Your task to perform on an android device: Open CNN.com Image 0: 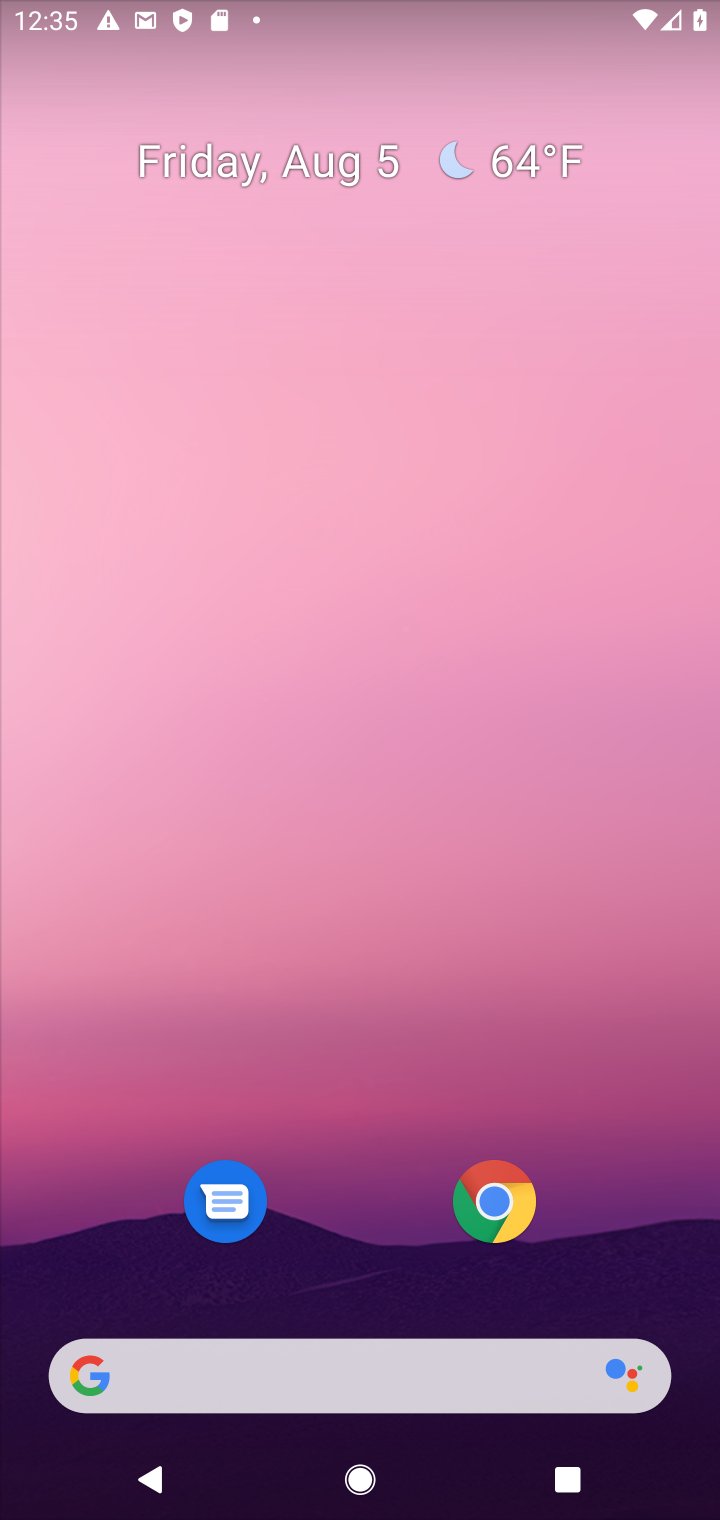
Step 0: click (501, 1193)
Your task to perform on an android device: Open CNN.com Image 1: 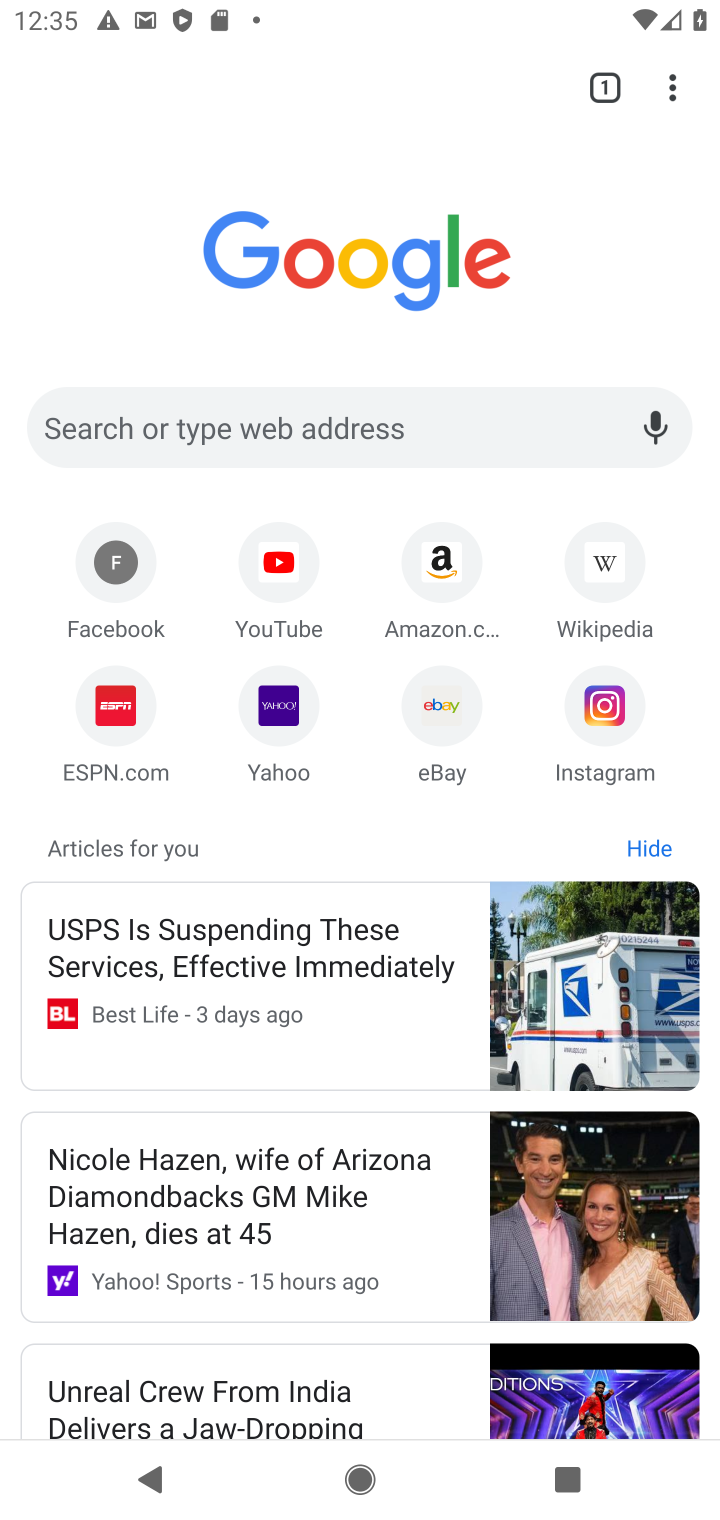
Step 1: click (383, 435)
Your task to perform on an android device: Open CNN.com Image 2: 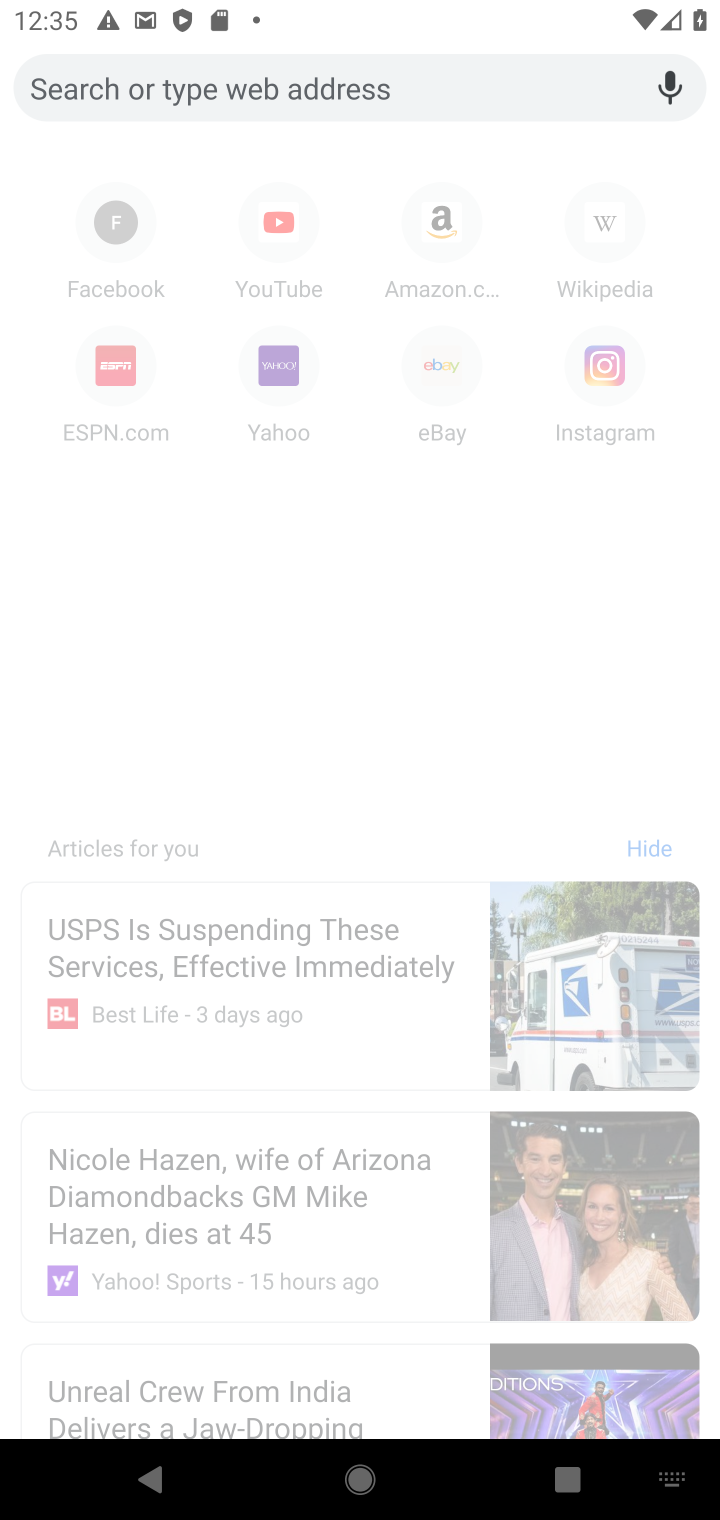
Step 2: type "cnn.com"
Your task to perform on an android device: Open CNN.com Image 3: 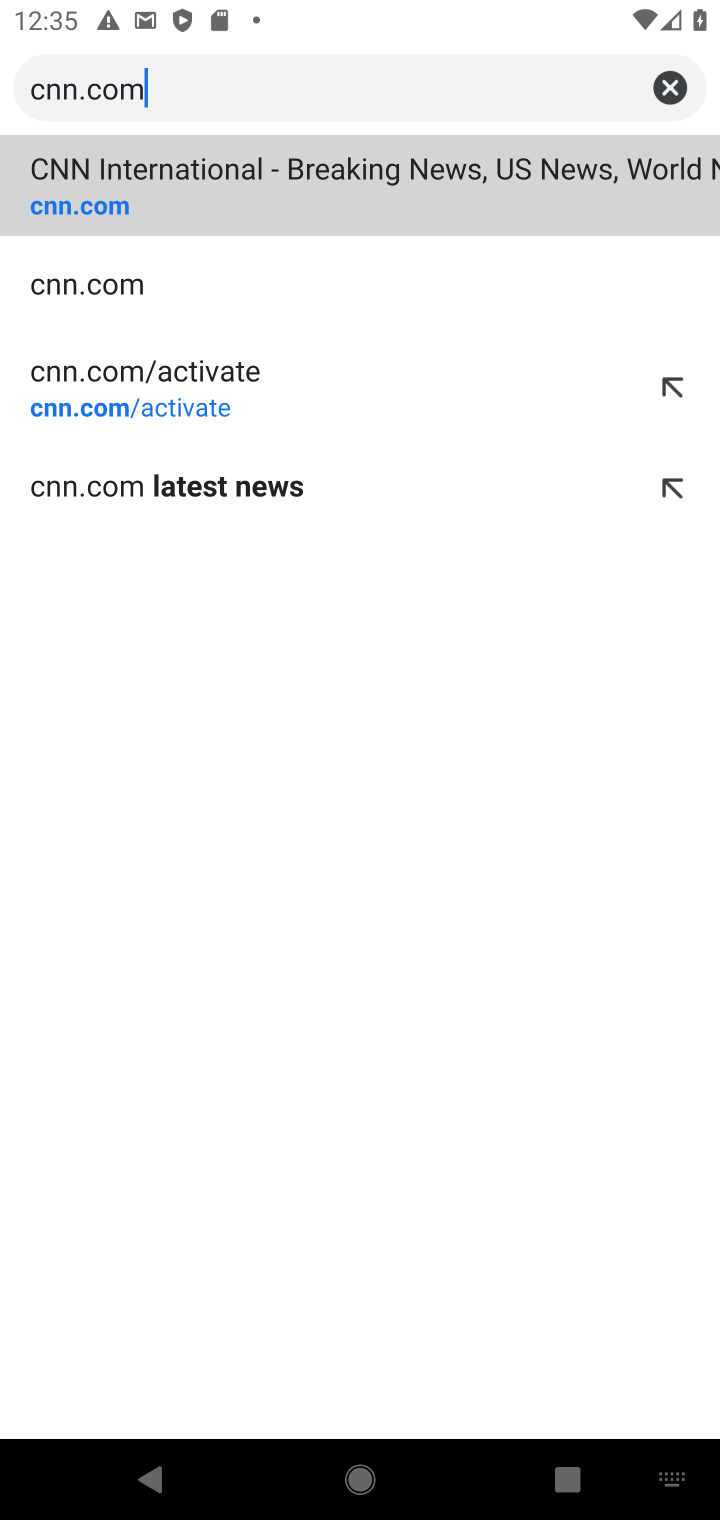
Step 3: click (305, 202)
Your task to perform on an android device: Open CNN.com Image 4: 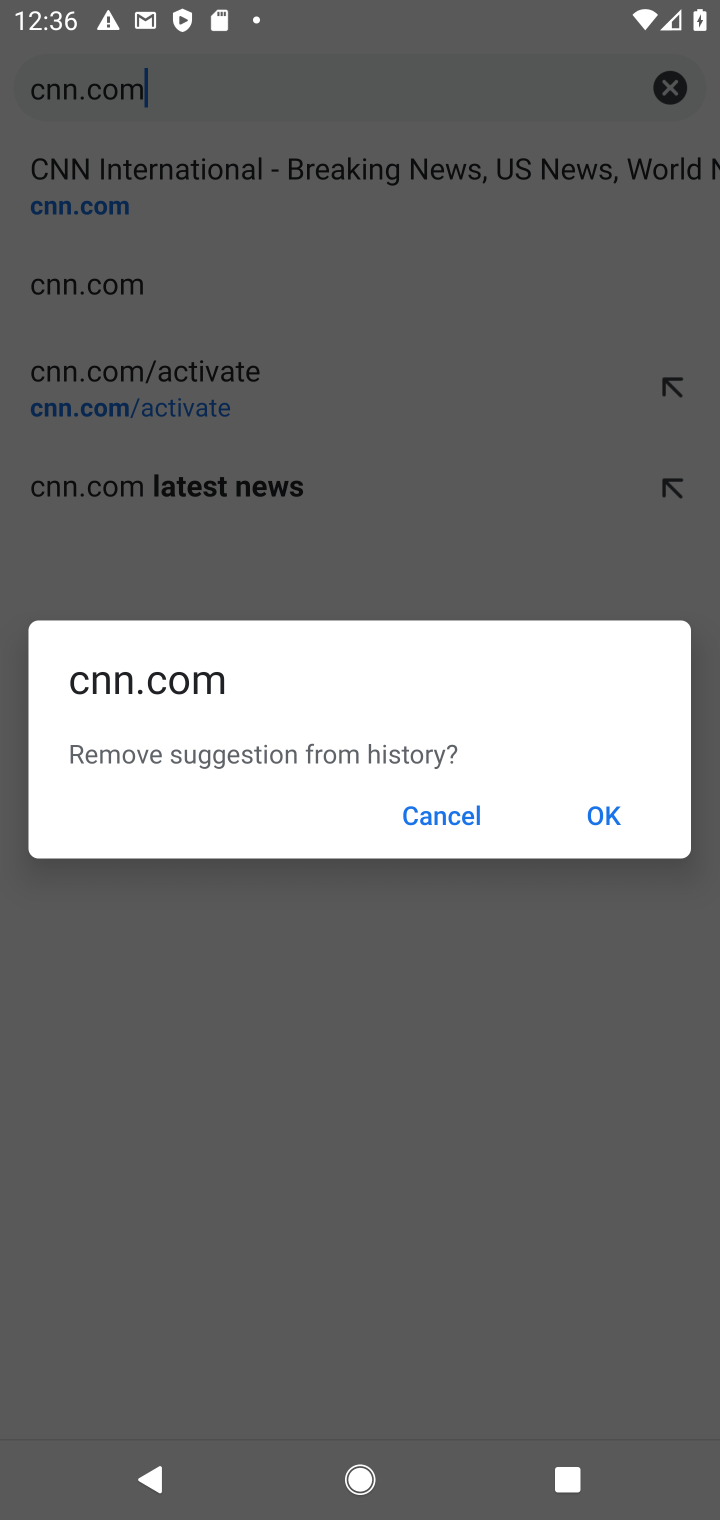
Step 4: click (460, 790)
Your task to perform on an android device: Open CNN.com Image 5: 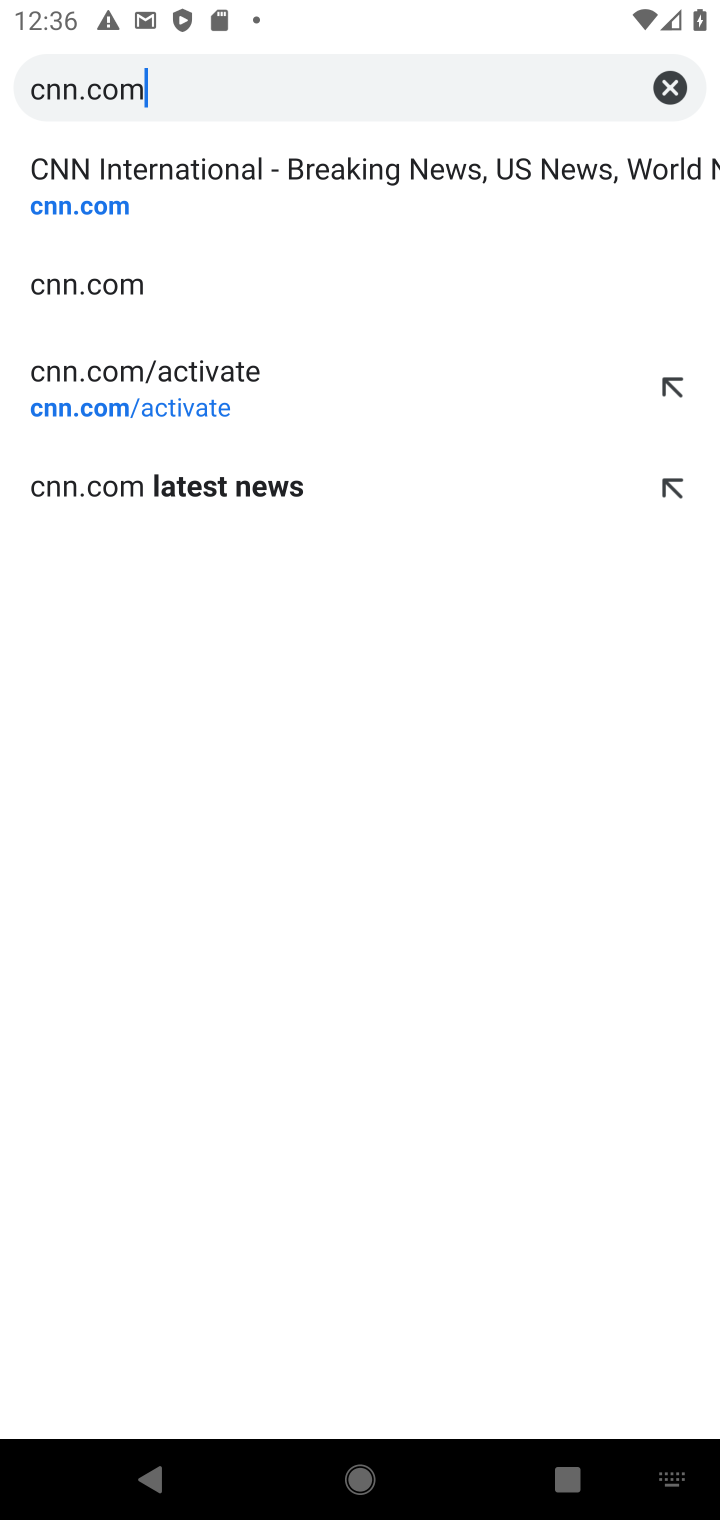
Step 5: click (107, 144)
Your task to perform on an android device: Open CNN.com Image 6: 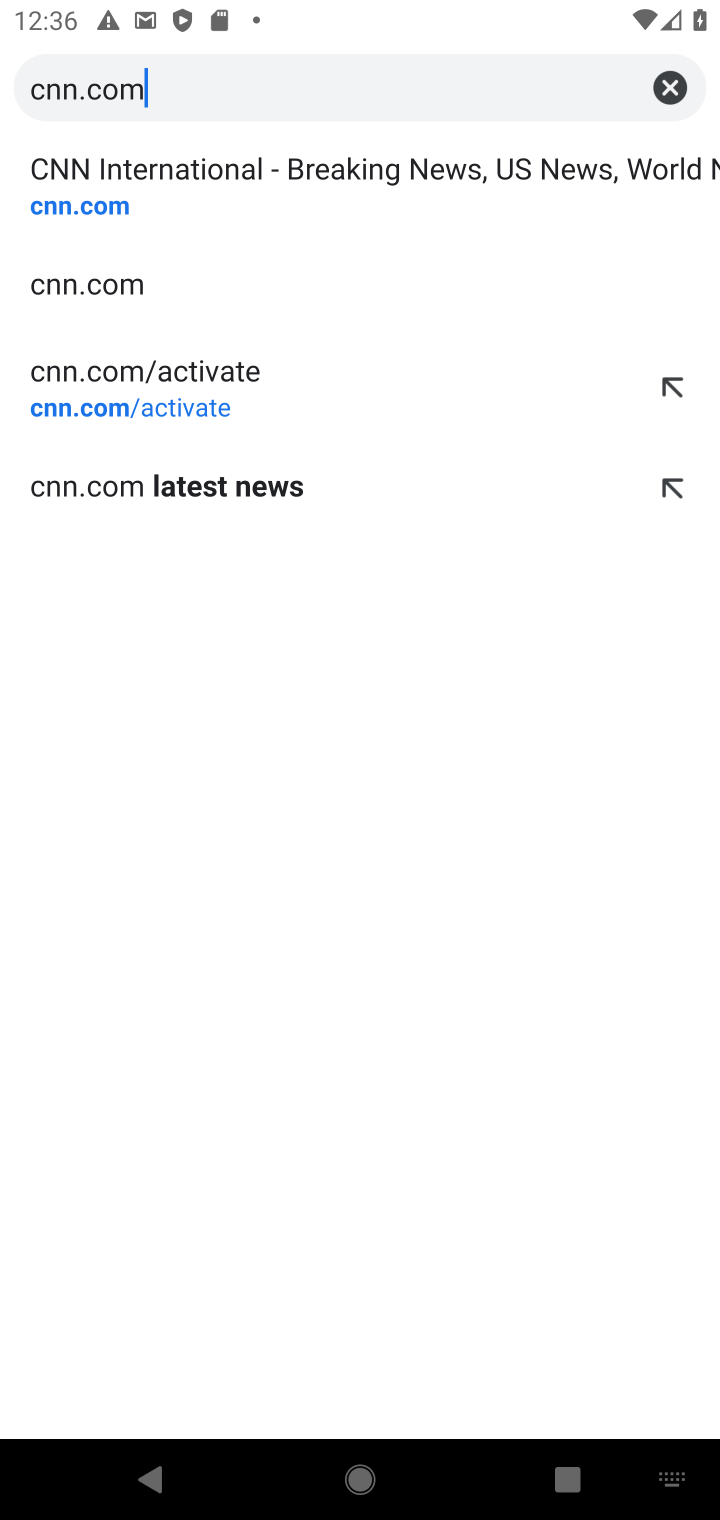
Step 6: click (264, 174)
Your task to perform on an android device: Open CNN.com Image 7: 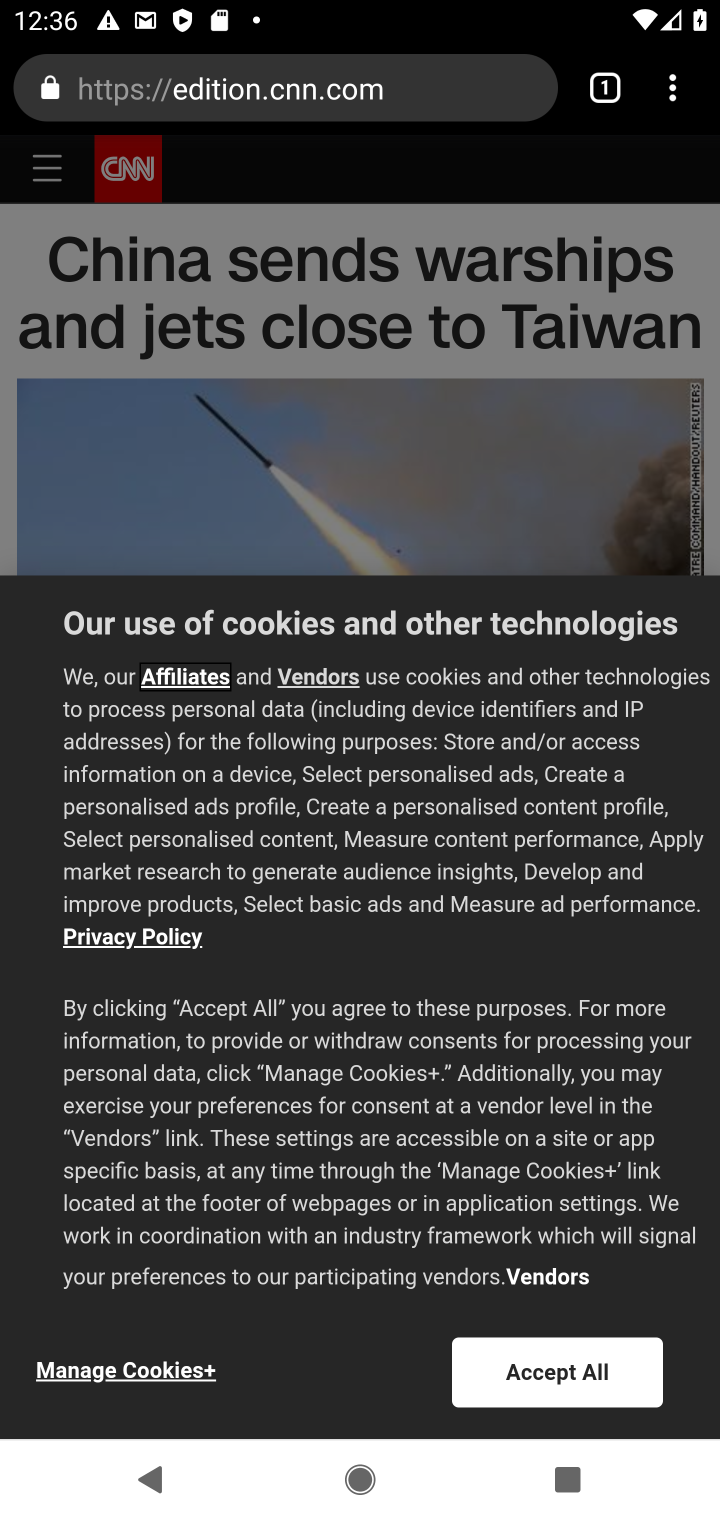
Step 7: task complete